Your task to perform on an android device: open device folders in google photos Image 0: 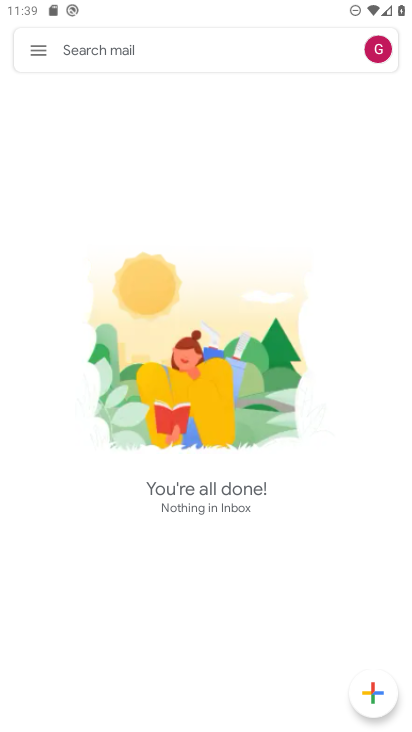
Step 0: press home button
Your task to perform on an android device: open device folders in google photos Image 1: 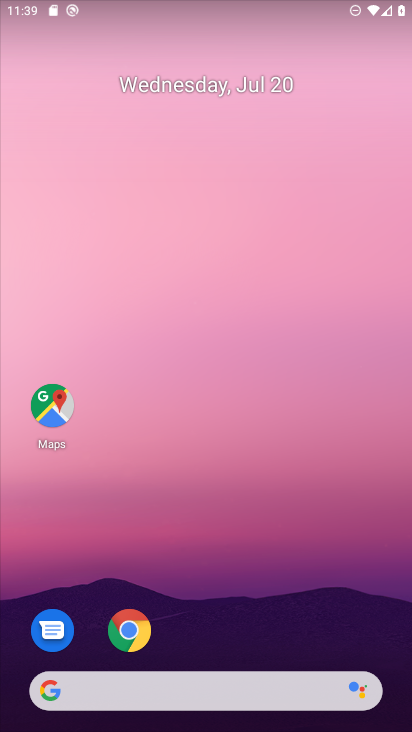
Step 1: drag from (224, 662) to (238, 249)
Your task to perform on an android device: open device folders in google photos Image 2: 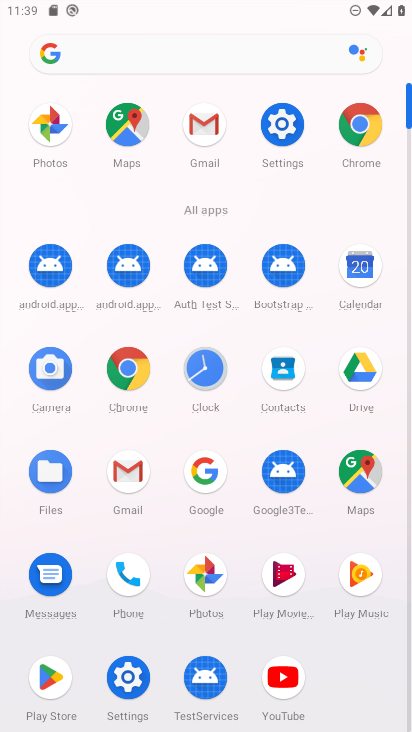
Step 2: click (218, 586)
Your task to perform on an android device: open device folders in google photos Image 3: 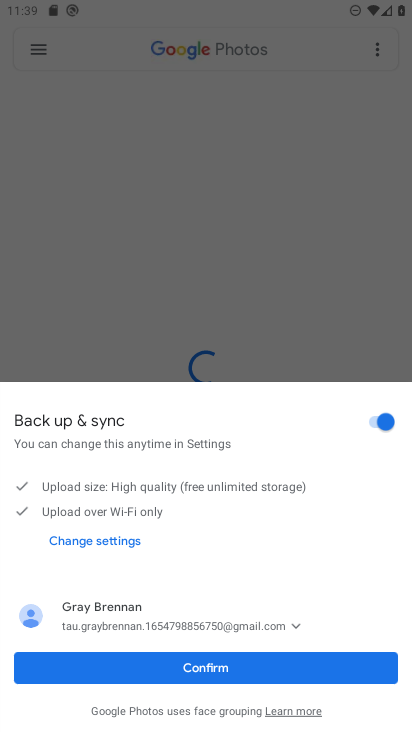
Step 3: click (211, 666)
Your task to perform on an android device: open device folders in google photos Image 4: 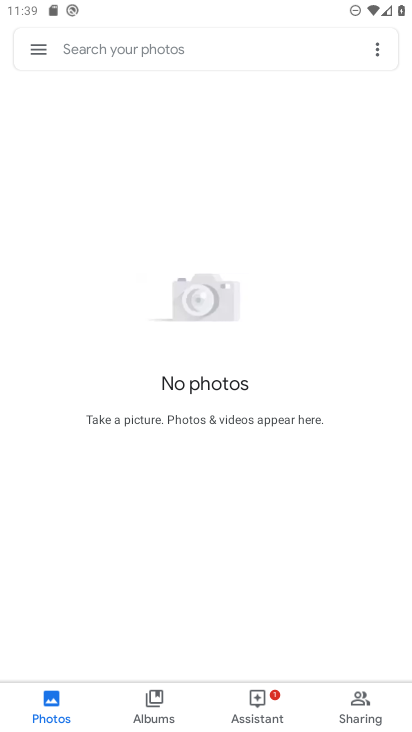
Step 4: click (41, 44)
Your task to perform on an android device: open device folders in google photos Image 5: 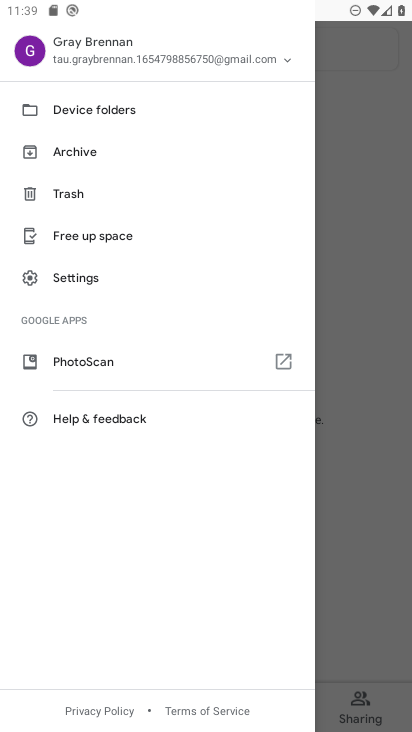
Step 5: click (105, 109)
Your task to perform on an android device: open device folders in google photos Image 6: 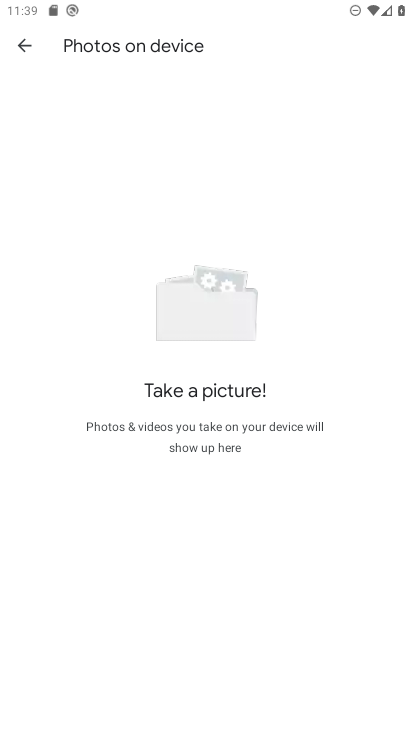
Step 6: task complete